Your task to perform on an android device: open chrome privacy settings Image 0: 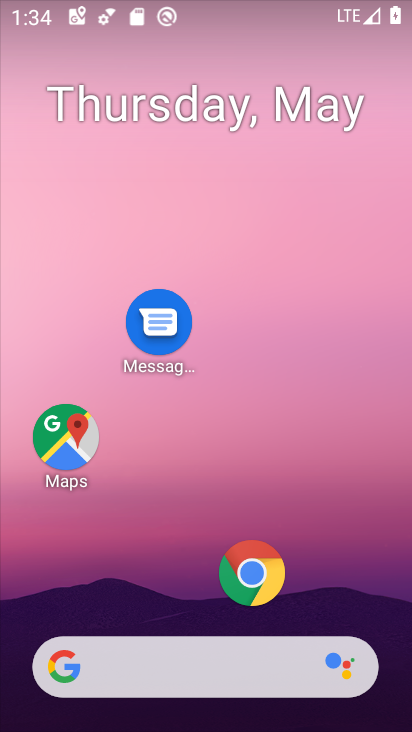
Step 0: click (311, 96)
Your task to perform on an android device: open chrome privacy settings Image 1: 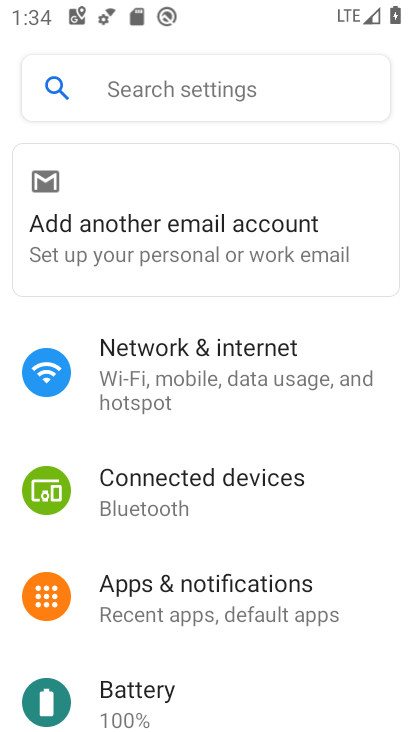
Step 1: drag from (201, 253) to (214, 162)
Your task to perform on an android device: open chrome privacy settings Image 2: 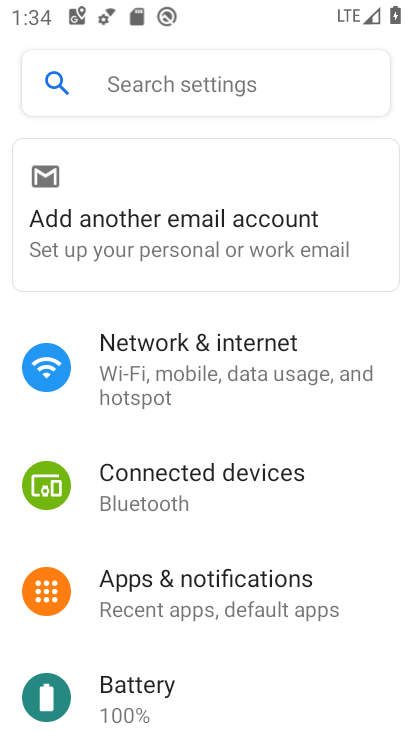
Step 2: press home button
Your task to perform on an android device: open chrome privacy settings Image 3: 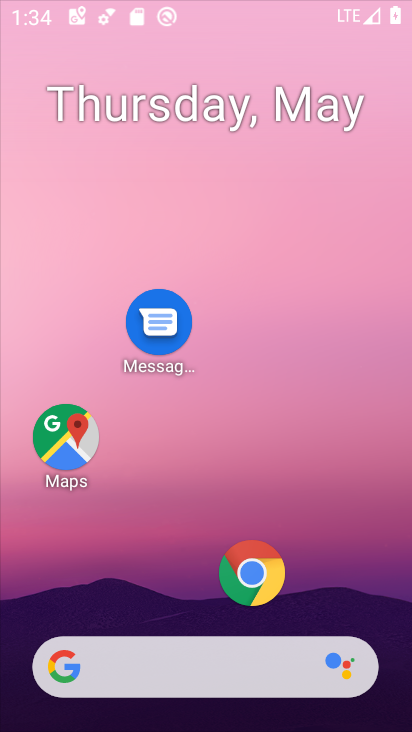
Step 3: drag from (201, 655) to (225, 218)
Your task to perform on an android device: open chrome privacy settings Image 4: 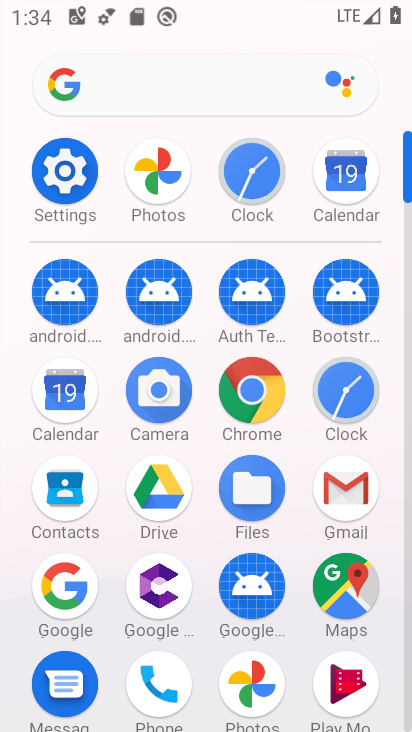
Step 4: click (245, 399)
Your task to perform on an android device: open chrome privacy settings Image 5: 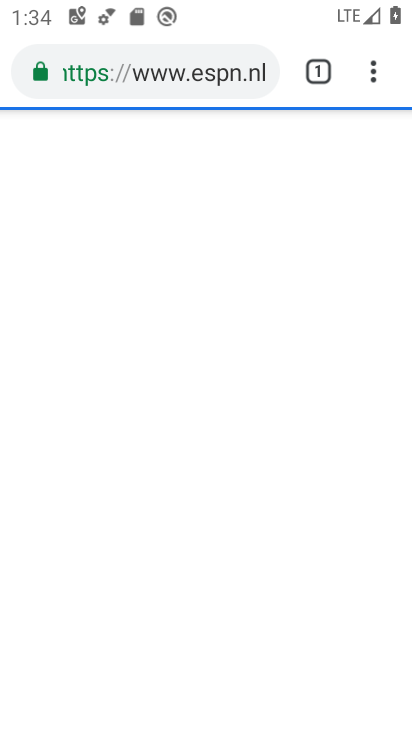
Step 5: click (369, 66)
Your task to perform on an android device: open chrome privacy settings Image 6: 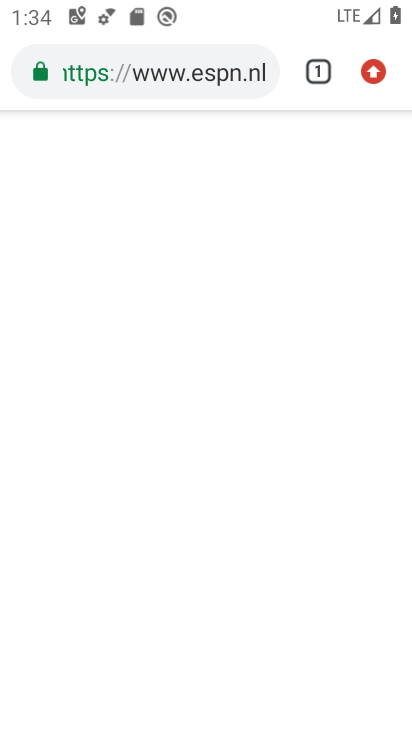
Step 6: click (372, 69)
Your task to perform on an android device: open chrome privacy settings Image 7: 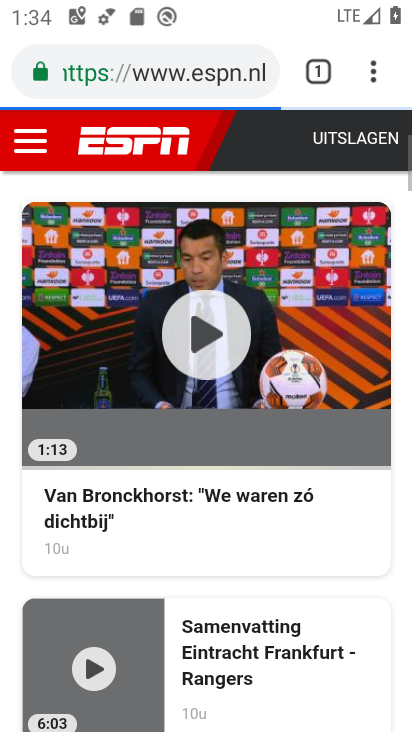
Step 7: click (372, 69)
Your task to perform on an android device: open chrome privacy settings Image 8: 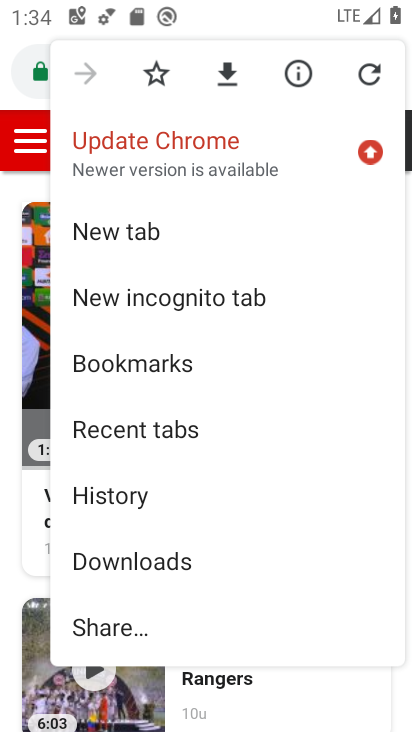
Step 8: drag from (133, 633) to (267, 43)
Your task to perform on an android device: open chrome privacy settings Image 9: 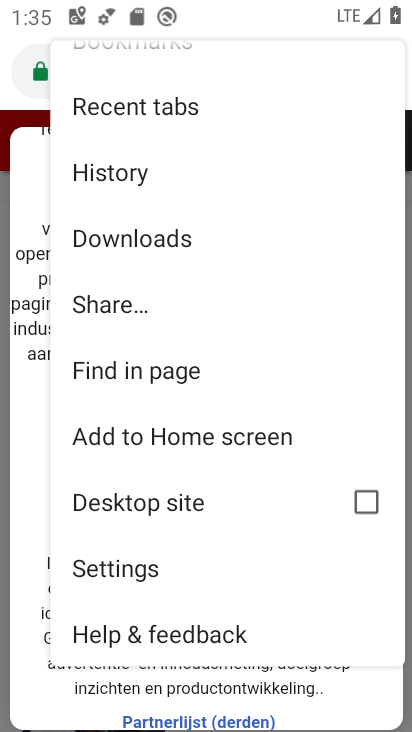
Step 9: click (143, 560)
Your task to perform on an android device: open chrome privacy settings Image 10: 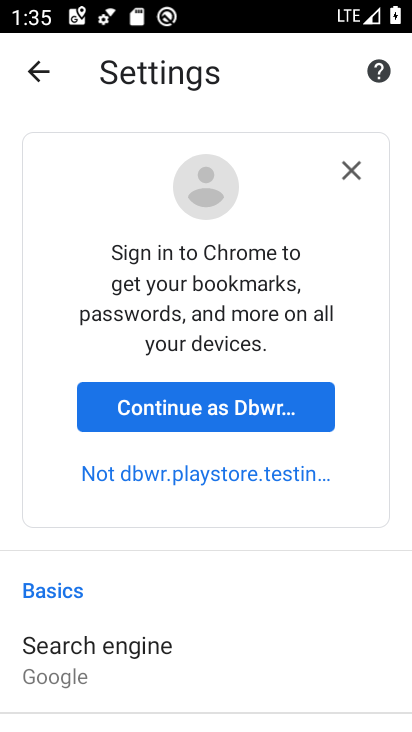
Step 10: drag from (155, 620) to (277, 205)
Your task to perform on an android device: open chrome privacy settings Image 11: 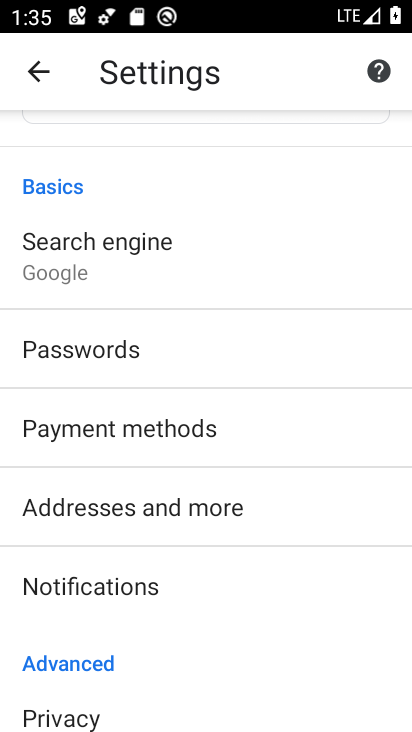
Step 11: click (111, 696)
Your task to perform on an android device: open chrome privacy settings Image 12: 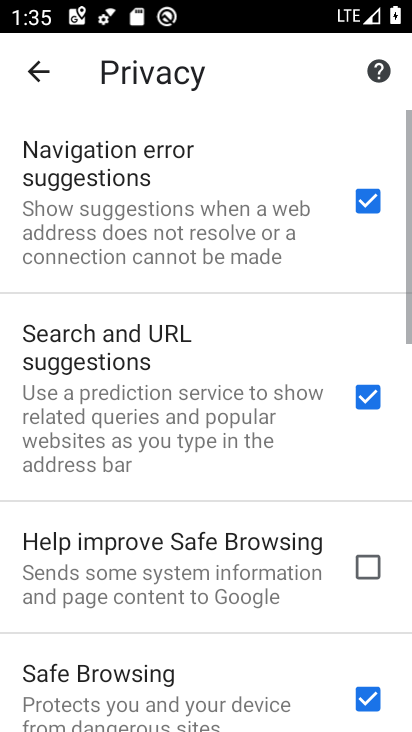
Step 12: task complete